Your task to perform on an android device: Empty the shopping cart on costco. Add "usb-a" to the cart on costco Image 0: 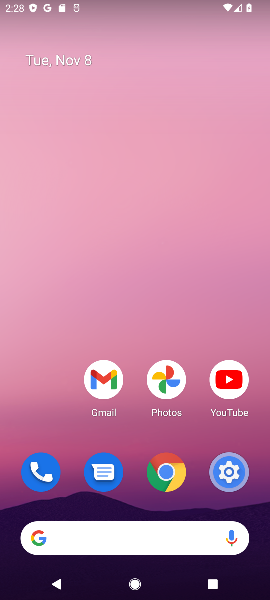
Step 0: click (128, 527)
Your task to perform on an android device: Empty the shopping cart on costco. Add "usb-a" to the cart on costco Image 1: 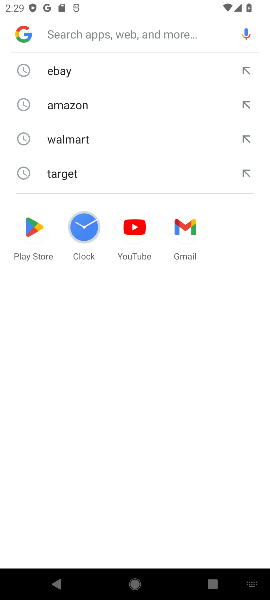
Step 1: type "costco"
Your task to perform on an android device: Empty the shopping cart on costco. Add "usb-a" to the cart on costco Image 2: 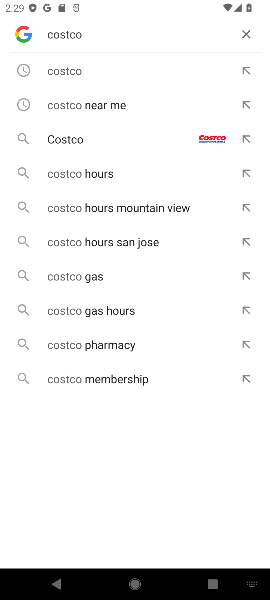
Step 2: click (164, 143)
Your task to perform on an android device: Empty the shopping cart on costco. Add "usb-a" to the cart on costco Image 3: 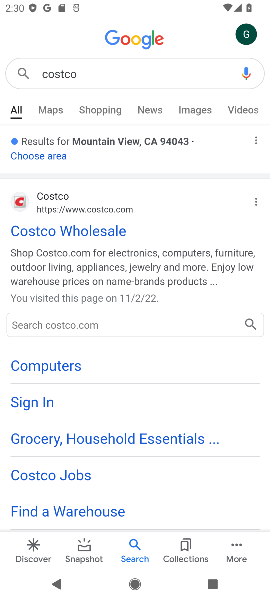
Step 3: click (94, 231)
Your task to perform on an android device: Empty the shopping cart on costco. Add "usb-a" to the cart on costco Image 4: 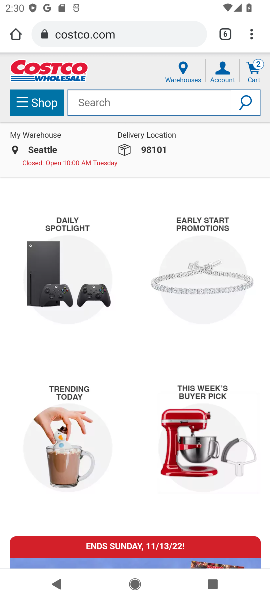
Step 4: click (177, 104)
Your task to perform on an android device: Empty the shopping cart on costco. Add "usb-a" to the cart on costco Image 5: 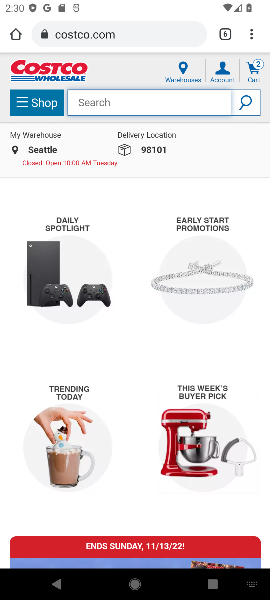
Step 5: type "usb-a "
Your task to perform on an android device: Empty the shopping cart on costco. Add "usb-a" to the cart on costco Image 6: 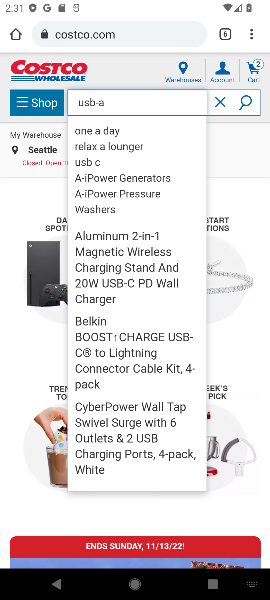
Step 6: click (244, 112)
Your task to perform on an android device: Empty the shopping cart on costco. Add "usb-a" to the cart on costco Image 7: 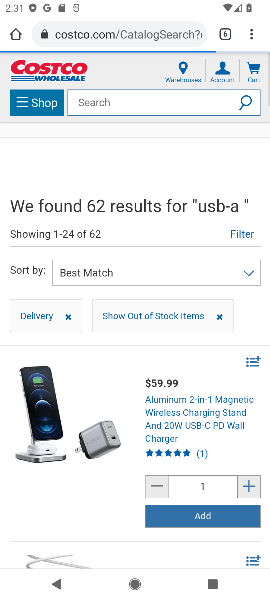
Step 7: click (178, 512)
Your task to perform on an android device: Empty the shopping cart on costco. Add "usb-a" to the cart on costco Image 8: 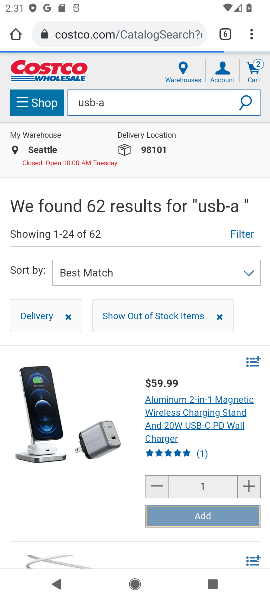
Step 8: task complete